Your task to perform on an android device: Open Google Image 0: 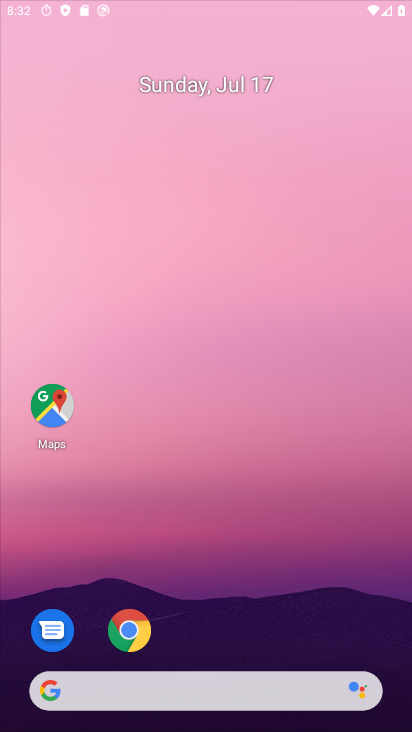
Step 0: click (42, 401)
Your task to perform on an android device: Open Google Image 1: 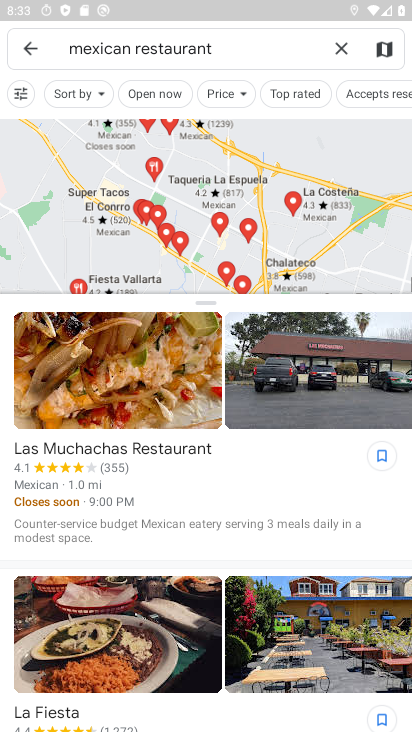
Step 1: press home button
Your task to perform on an android device: Open Google Image 2: 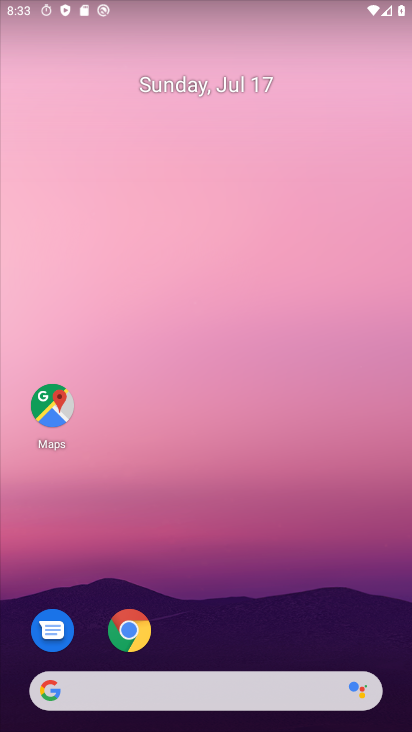
Step 2: click (142, 684)
Your task to perform on an android device: Open Google Image 3: 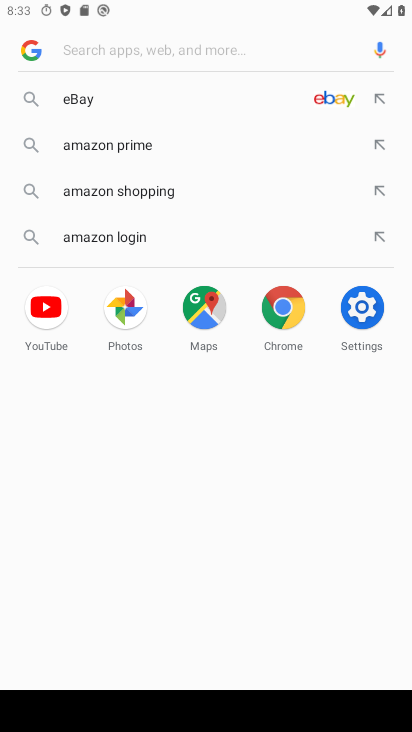
Step 3: task complete